Your task to perform on an android device: Open Chrome and go to settings Image 0: 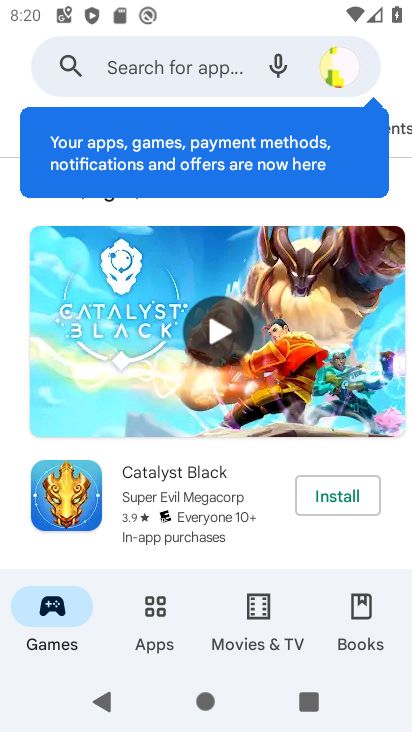
Step 0: press home button
Your task to perform on an android device: Open Chrome and go to settings Image 1: 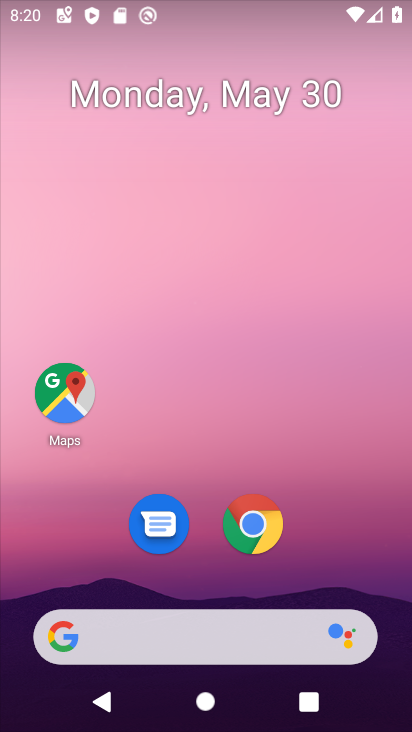
Step 1: click (243, 518)
Your task to perform on an android device: Open Chrome and go to settings Image 2: 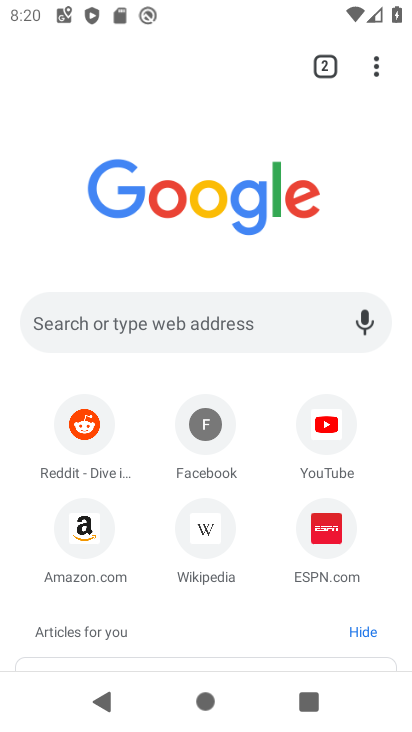
Step 2: click (376, 68)
Your task to perform on an android device: Open Chrome and go to settings Image 3: 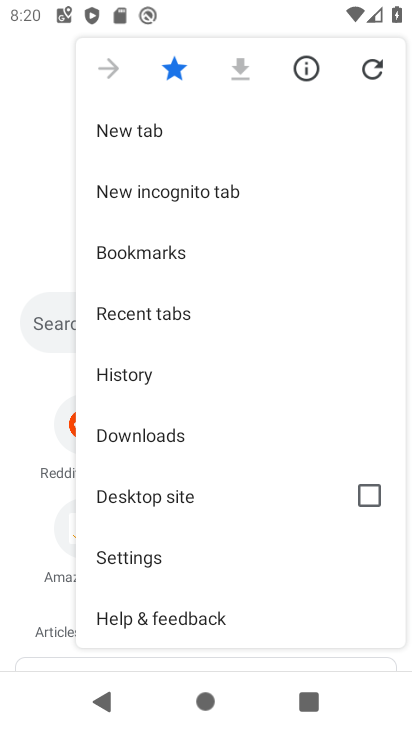
Step 3: click (144, 551)
Your task to perform on an android device: Open Chrome and go to settings Image 4: 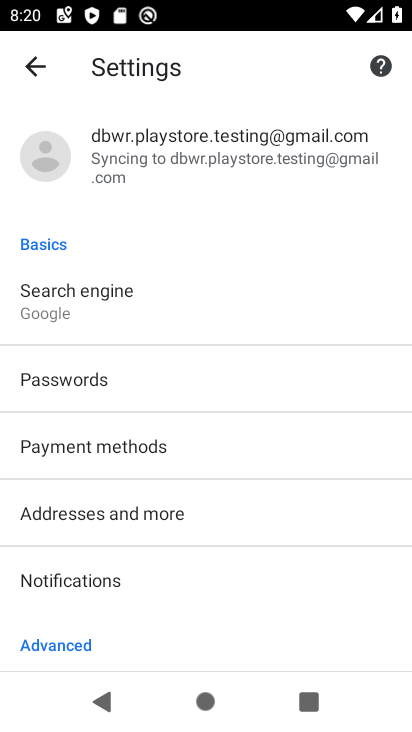
Step 4: task complete